Your task to perform on an android device: Search for Mexican restaurants on Maps Image 0: 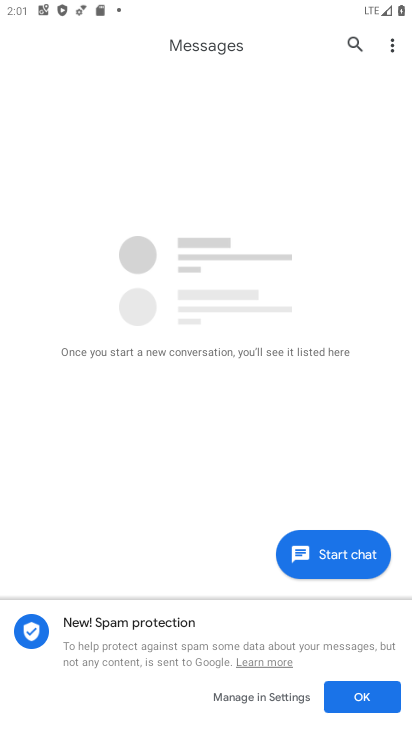
Step 0: press home button
Your task to perform on an android device: Search for Mexican restaurants on Maps Image 1: 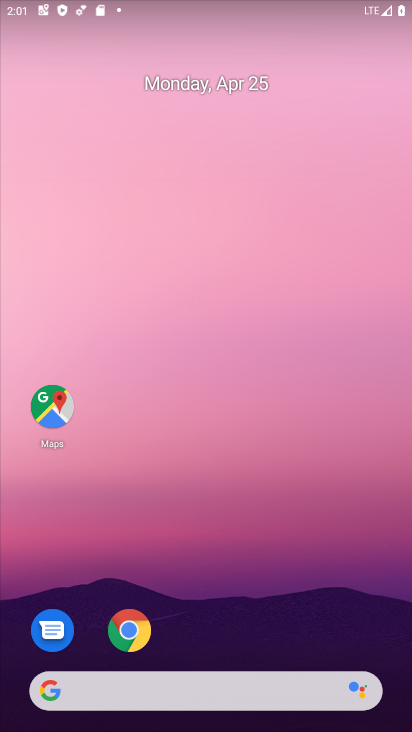
Step 1: drag from (339, 605) to (367, 4)
Your task to perform on an android device: Search for Mexican restaurants on Maps Image 2: 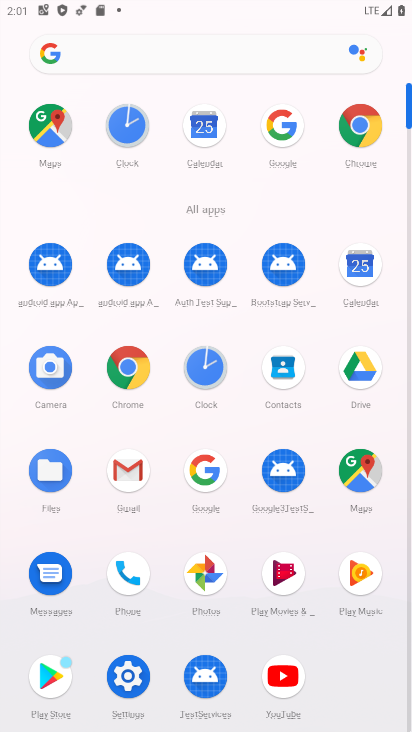
Step 2: click (359, 470)
Your task to perform on an android device: Search for Mexican restaurants on Maps Image 3: 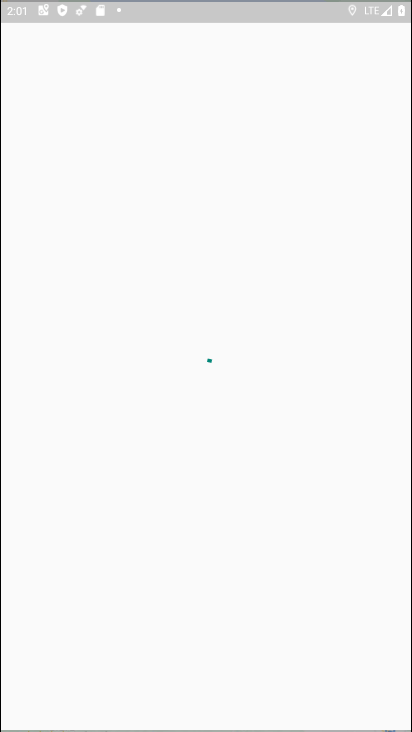
Step 3: click (209, 49)
Your task to perform on an android device: Search for Mexican restaurants on Maps Image 4: 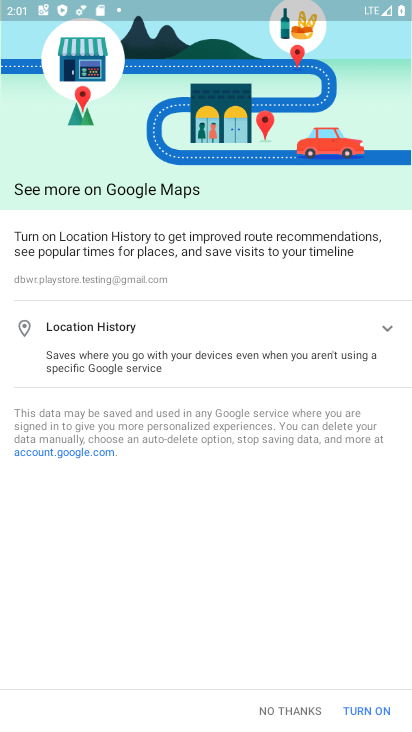
Step 4: click (301, 701)
Your task to perform on an android device: Search for Mexican restaurants on Maps Image 5: 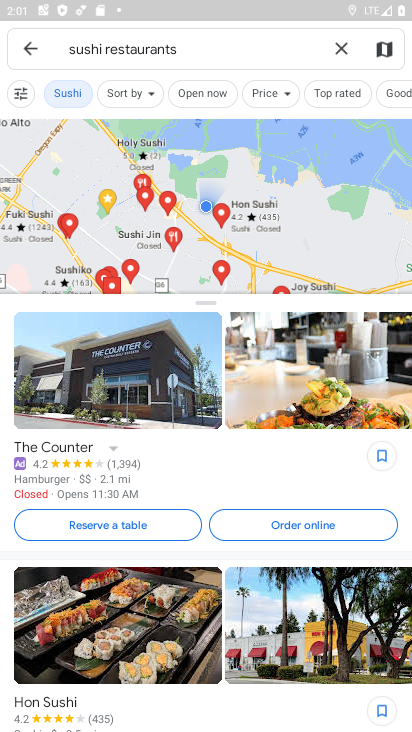
Step 5: click (279, 50)
Your task to perform on an android device: Search for Mexican restaurants on Maps Image 6: 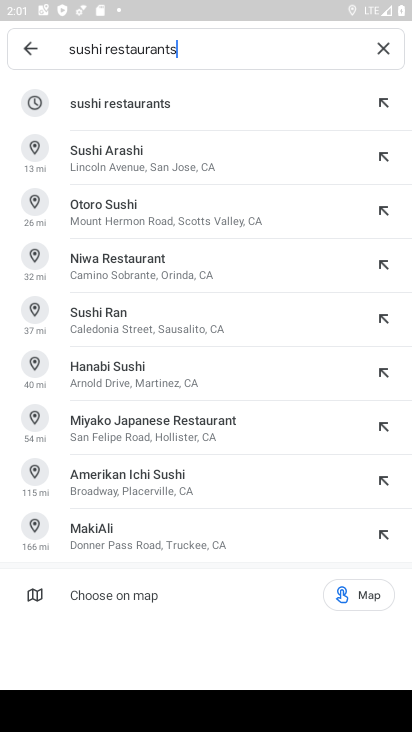
Step 6: click (379, 44)
Your task to perform on an android device: Search for Mexican restaurants on Maps Image 7: 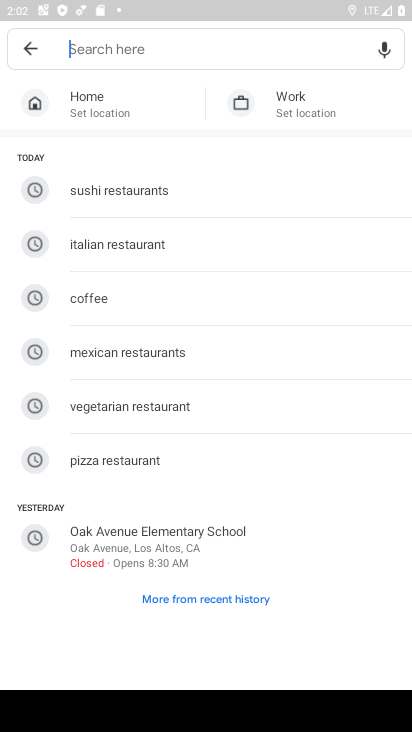
Step 7: click (237, 50)
Your task to perform on an android device: Search for Mexican restaurants on Maps Image 8: 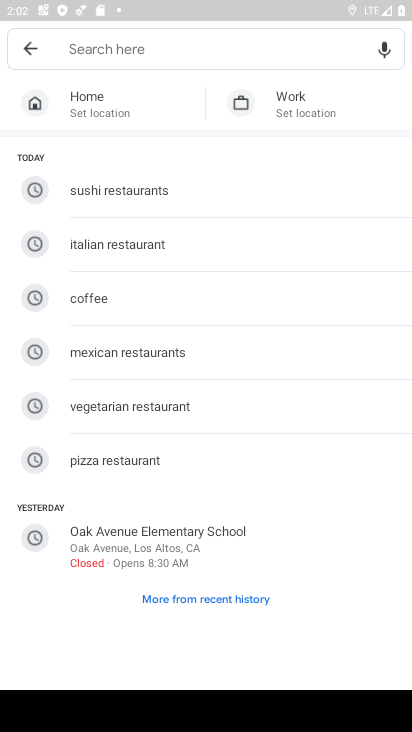
Step 8: type "mexcian restaurants"
Your task to perform on an android device: Search for Mexican restaurants on Maps Image 9: 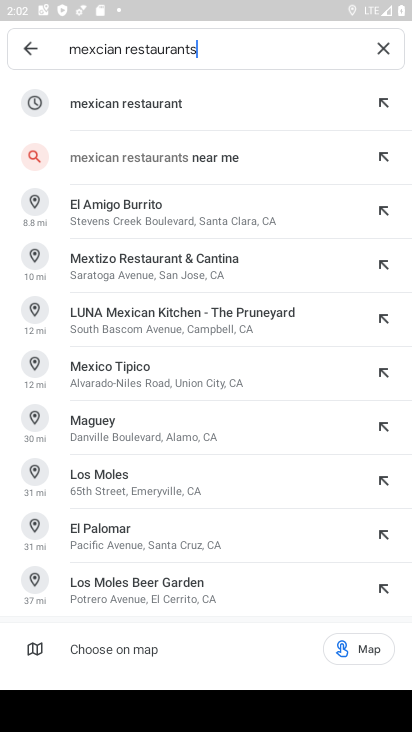
Step 9: click (170, 105)
Your task to perform on an android device: Search for Mexican restaurants on Maps Image 10: 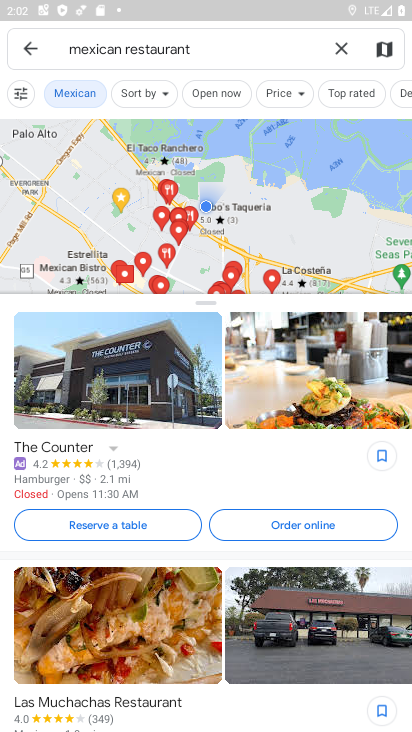
Step 10: task complete